Your task to perform on an android device: What's the weather going to be tomorrow? Image 0: 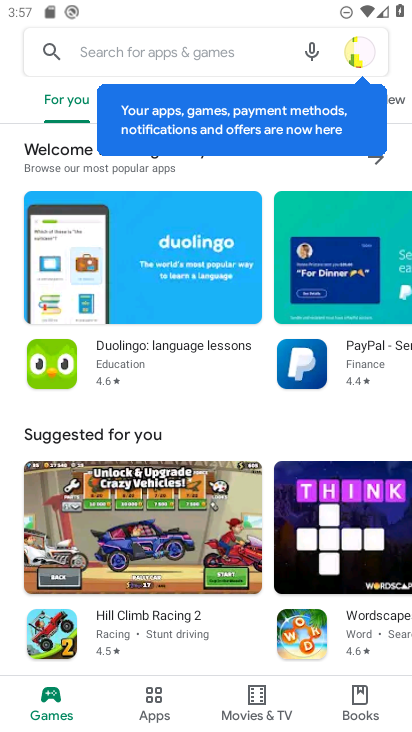
Step 0: press home button
Your task to perform on an android device: What's the weather going to be tomorrow? Image 1: 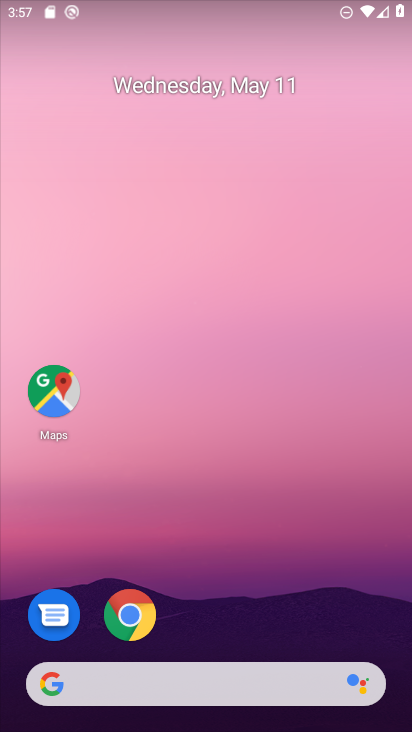
Step 1: drag from (236, 641) to (317, 10)
Your task to perform on an android device: What's the weather going to be tomorrow? Image 2: 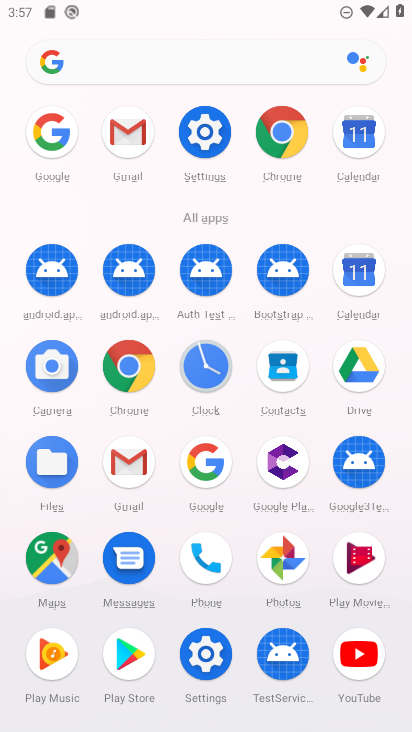
Step 2: click (206, 472)
Your task to perform on an android device: What's the weather going to be tomorrow? Image 3: 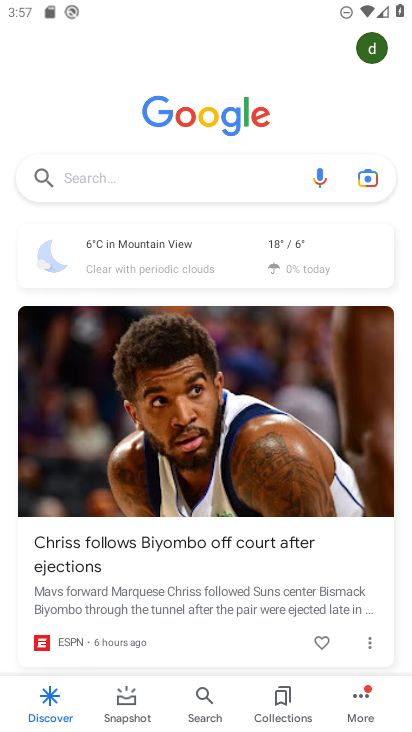
Step 3: click (170, 256)
Your task to perform on an android device: What's the weather going to be tomorrow? Image 4: 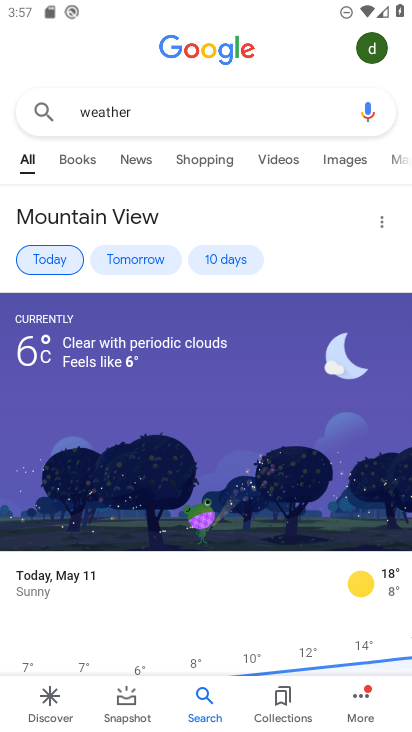
Step 4: click (148, 252)
Your task to perform on an android device: What's the weather going to be tomorrow? Image 5: 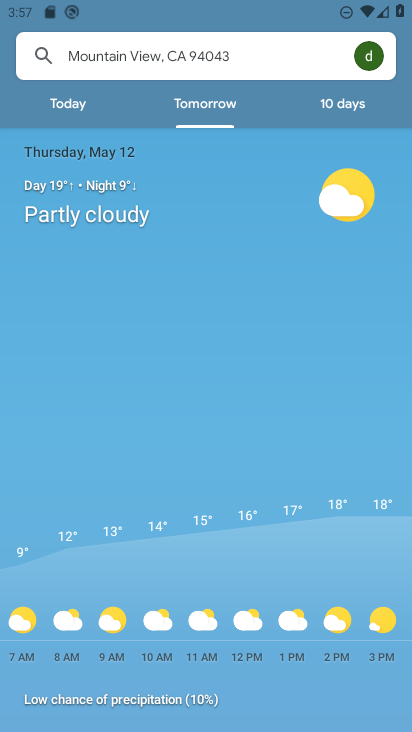
Step 5: task complete